Your task to perform on an android device: Go to Maps Image 0: 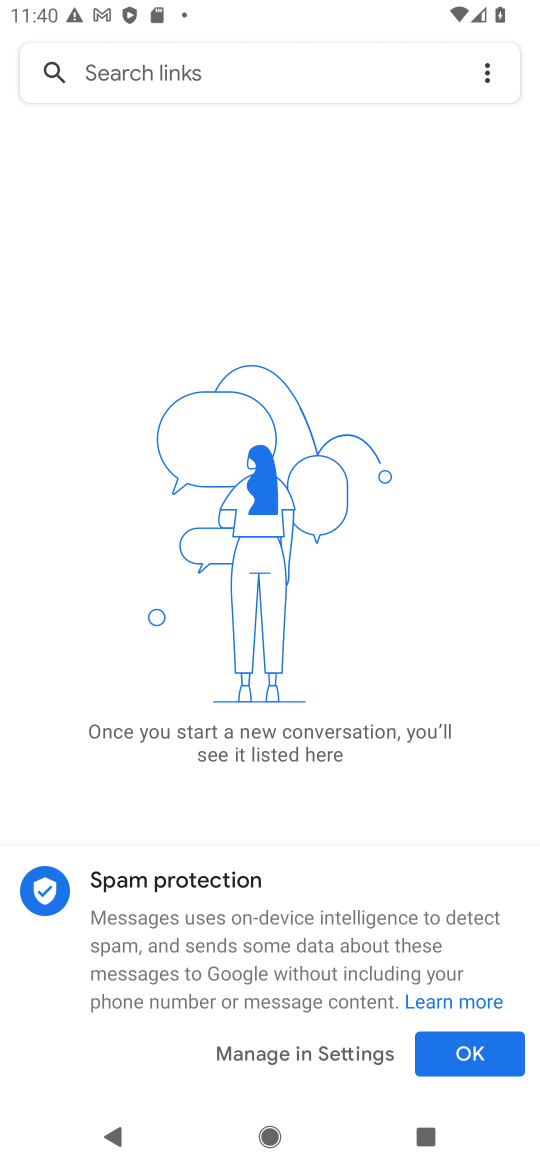
Step 0: press home button
Your task to perform on an android device: Go to Maps Image 1: 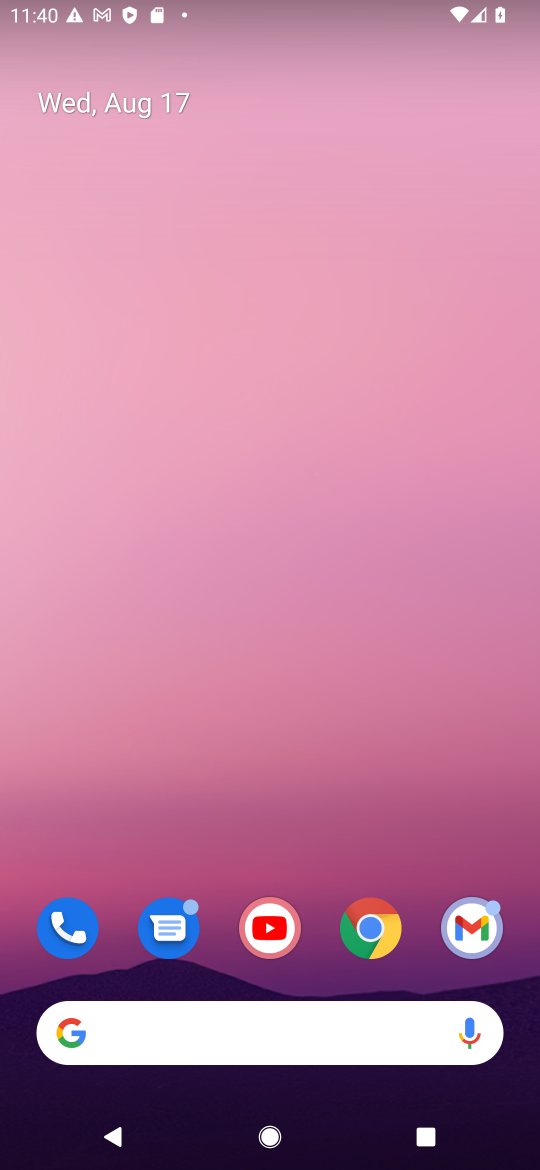
Step 1: drag from (286, 814) to (319, 143)
Your task to perform on an android device: Go to Maps Image 2: 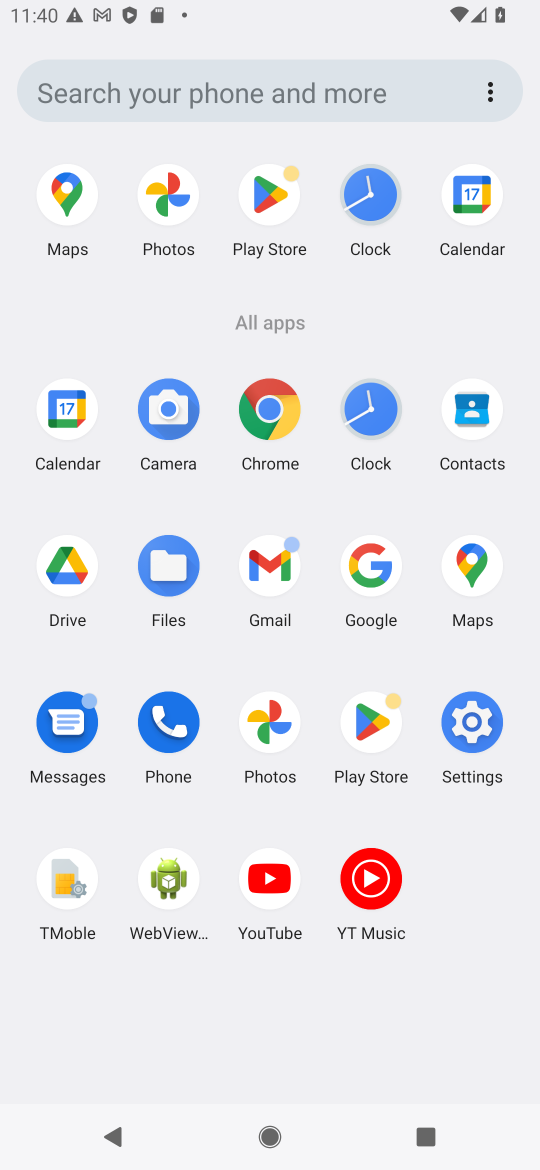
Step 2: click (467, 587)
Your task to perform on an android device: Go to Maps Image 3: 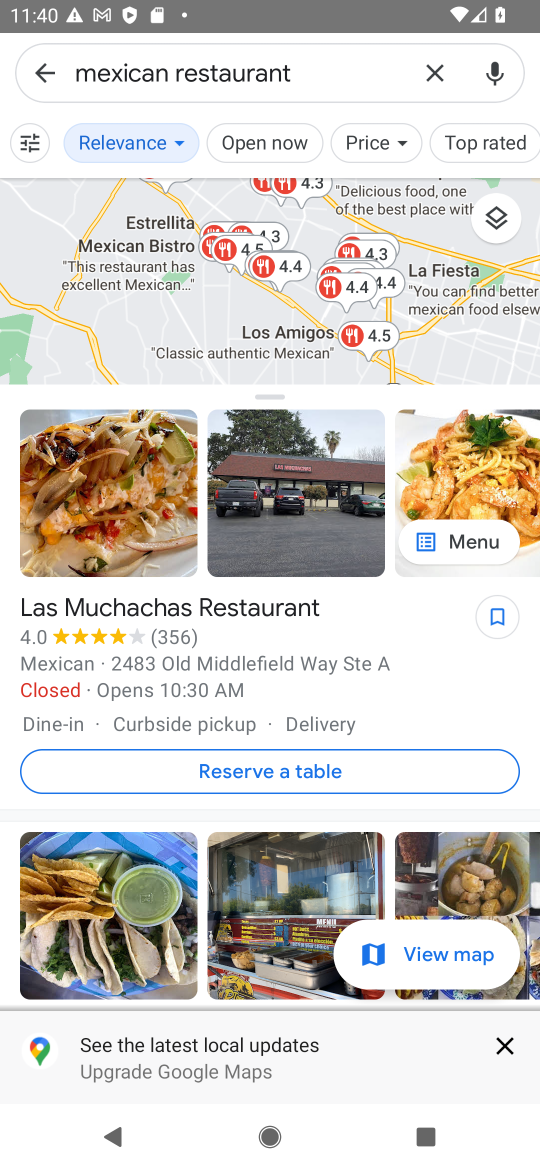
Step 3: task complete